Your task to perform on an android device: Open the Play Movies app and select the watchlist tab. Image 0: 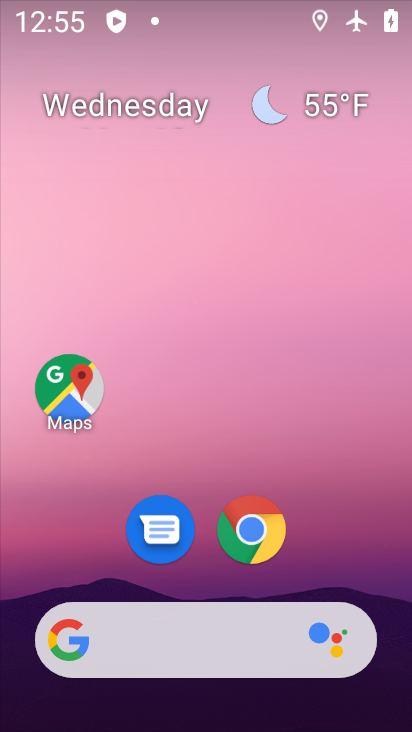
Step 0: drag from (211, 727) to (201, 208)
Your task to perform on an android device: Open the Play Movies app and select the watchlist tab. Image 1: 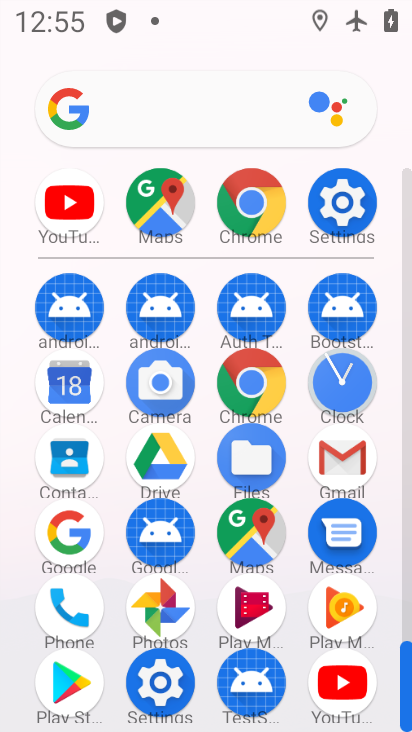
Step 1: click (254, 605)
Your task to perform on an android device: Open the Play Movies app and select the watchlist tab. Image 2: 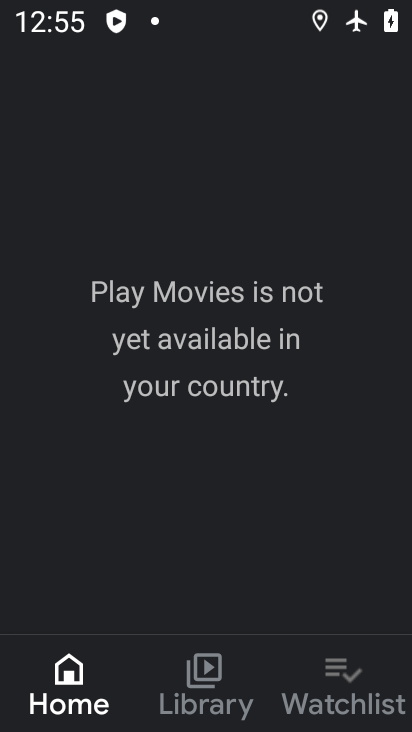
Step 2: click (350, 679)
Your task to perform on an android device: Open the Play Movies app and select the watchlist tab. Image 3: 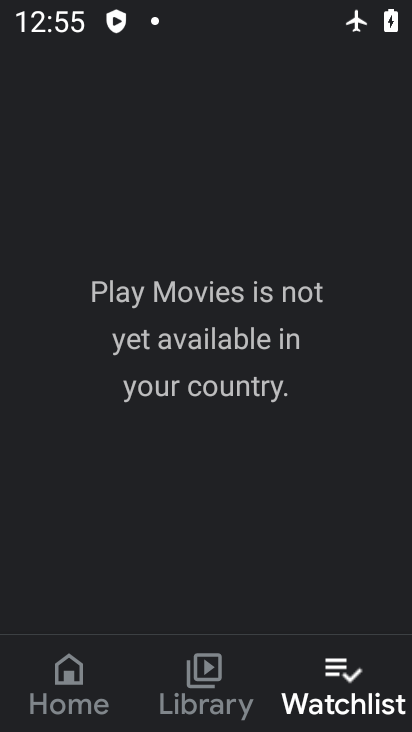
Step 3: task complete